Your task to perform on an android device: Search for sushi restaurants on Maps Image 0: 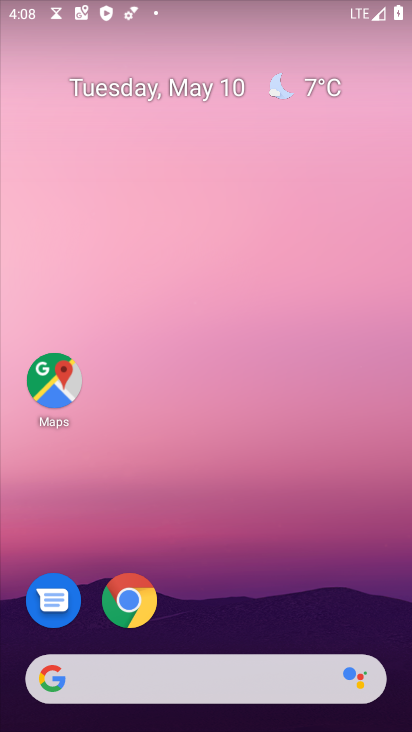
Step 0: click (41, 375)
Your task to perform on an android device: Search for sushi restaurants on Maps Image 1: 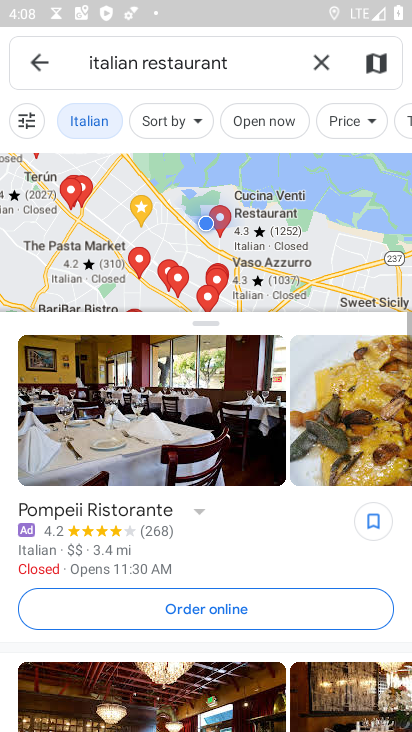
Step 1: click (124, 56)
Your task to perform on an android device: Search for sushi restaurants on Maps Image 2: 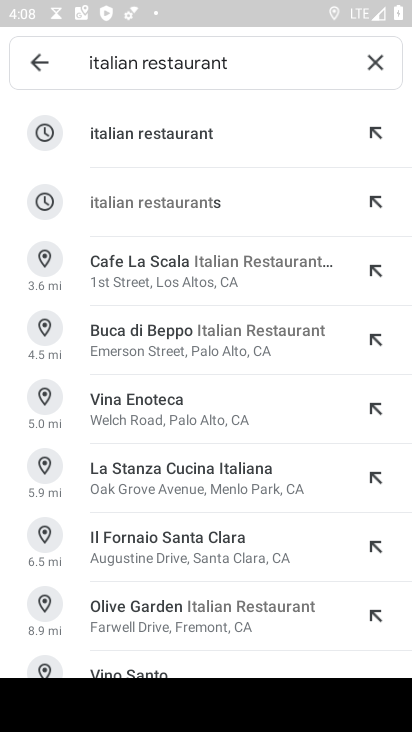
Step 2: click (139, 58)
Your task to perform on an android device: Search for sushi restaurants on Maps Image 3: 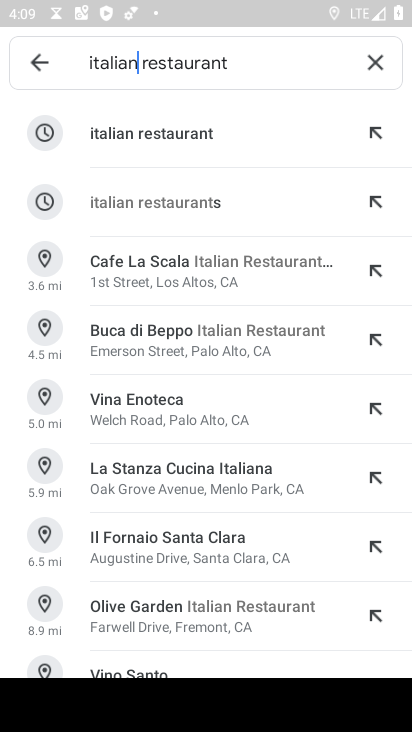
Step 3: click (372, 66)
Your task to perform on an android device: Search for sushi restaurants on Maps Image 4: 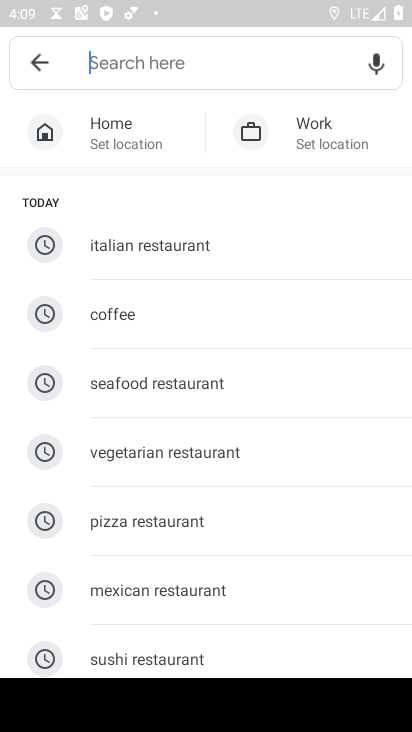
Step 4: type "sushi restaurant"
Your task to perform on an android device: Search for sushi restaurants on Maps Image 5: 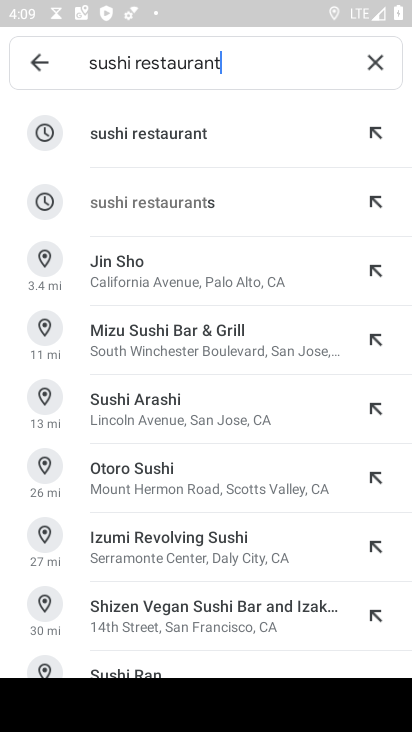
Step 5: click (152, 119)
Your task to perform on an android device: Search for sushi restaurants on Maps Image 6: 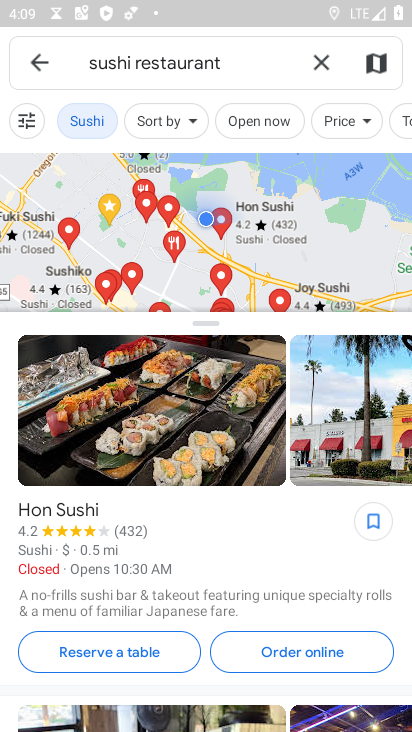
Step 6: drag from (345, 412) to (48, 439)
Your task to perform on an android device: Search for sushi restaurants on Maps Image 7: 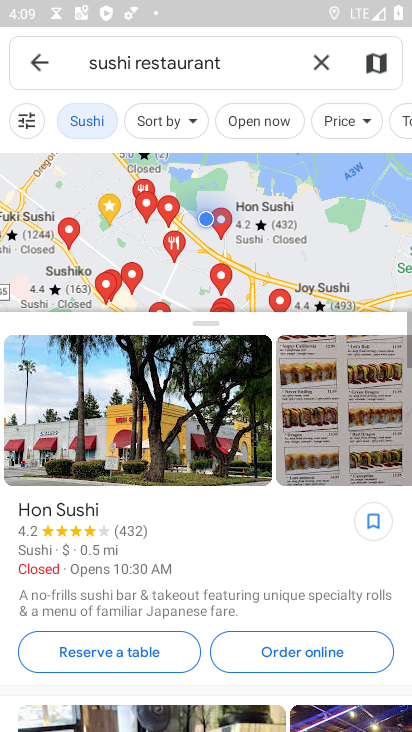
Step 7: drag from (285, 401) to (139, 422)
Your task to perform on an android device: Search for sushi restaurants on Maps Image 8: 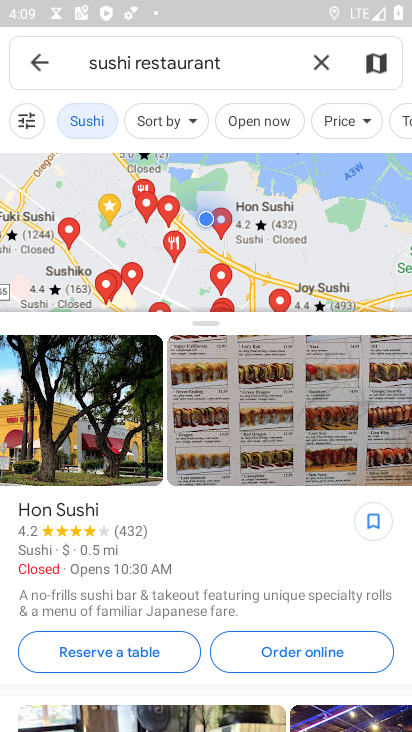
Step 8: drag from (331, 428) to (234, 421)
Your task to perform on an android device: Search for sushi restaurants on Maps Image 9: 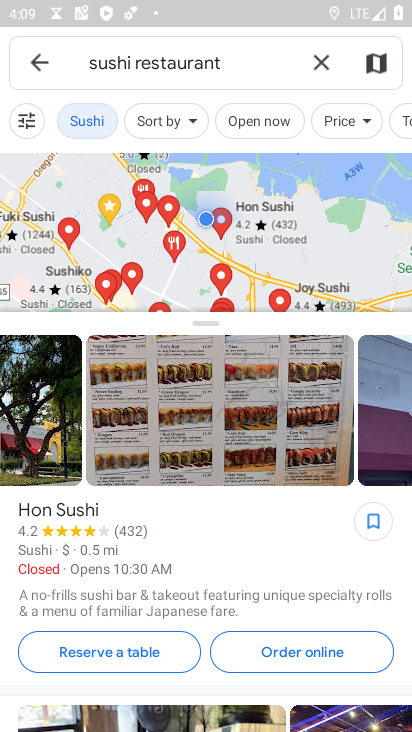
Step 9: drag from (189, 582) to (199, 395)
Your task to perform on an android device: Search for sushi restaurants on Maps Image 10: 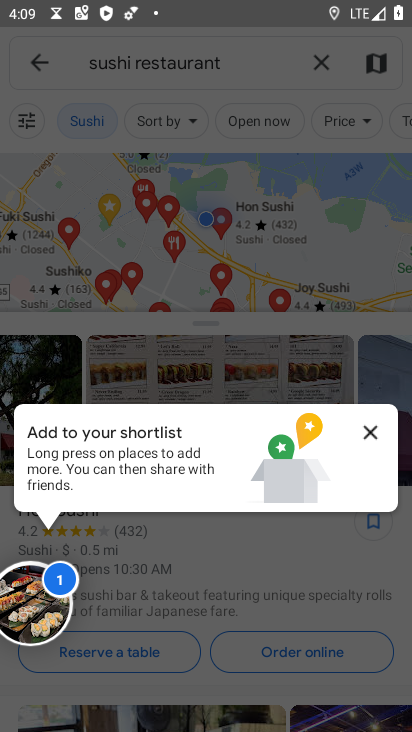
Step 10: click (364, 428)
Your task to perform on an android device: Search for sushi restaurants on Maps Image 11: 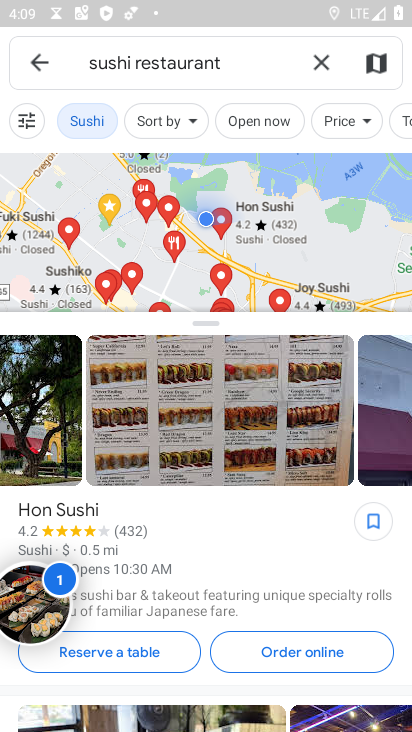
Step 11: drag from (190, 597) to (205, 295)
Your task to perform on an android device: Search for sushi restaurants on Maps Image 12: 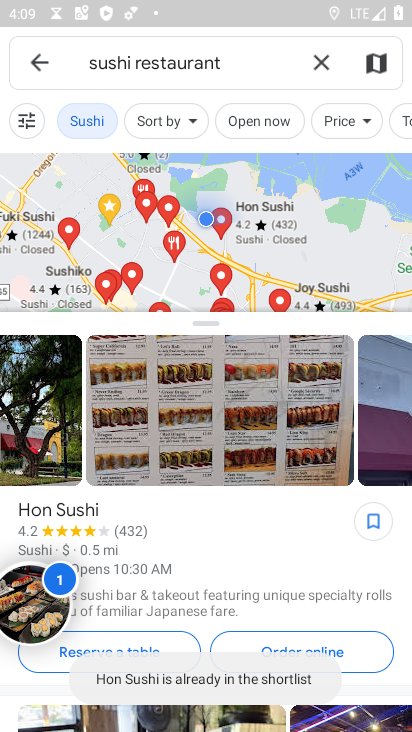
Step 12: drag from (234, 544) to (234, 424)
Your task to perform on an android device: Search for sushi restaurants on Maps Image 13: 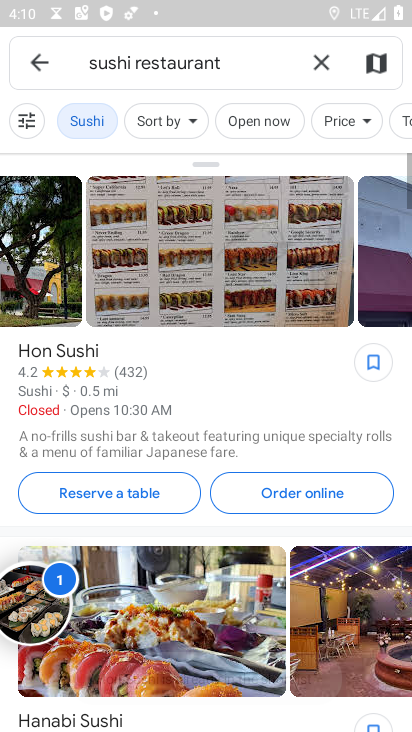
Step 13: drag from (180, 550) to (254, 154)
Your task to perform on an android device: Search for sushi restaurants on Maps Image 14: 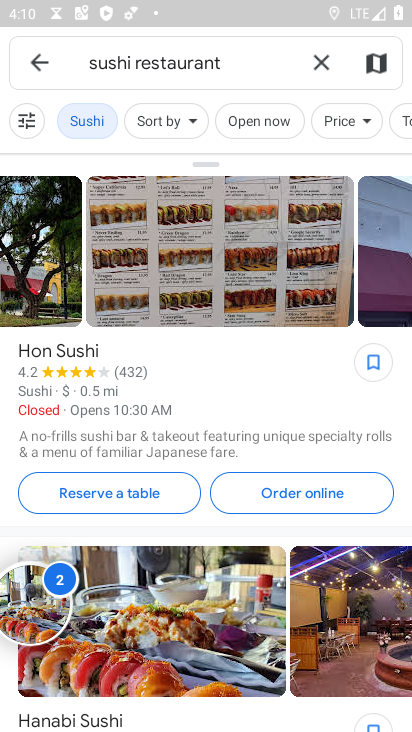
Step 14: click (56, 571)
Your task to perform on an android device: Search for sushi restaurants on Maps Image 15: 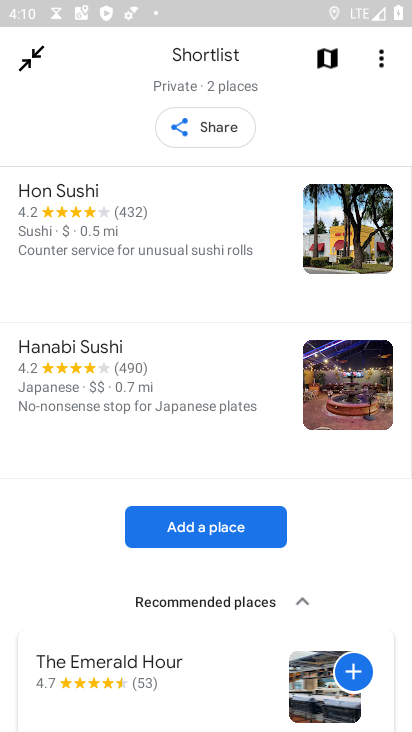
Step 15: click (23, 58)
Your task to perform on an android device: Search for sushi restaurants on Maps Image 16: 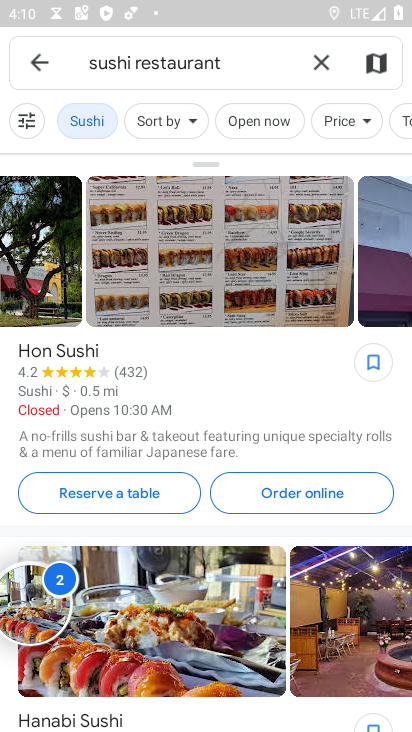
Step 16: task complete